Your task to perform on an android device: Open privacy settings Image 0: 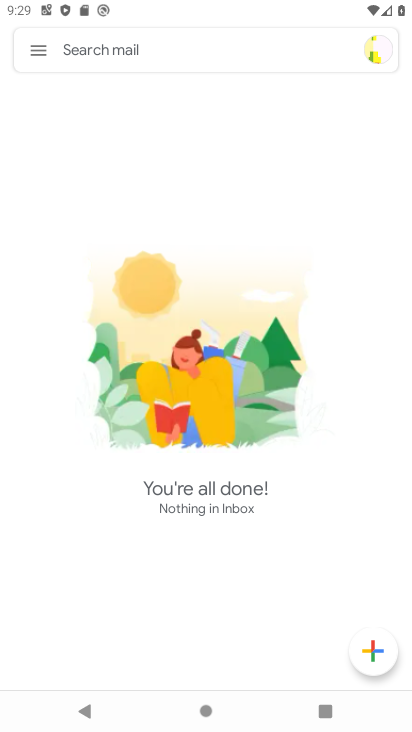
Step 0: press home button
Your task to perform on an android device: Open privacy settings Image 1: 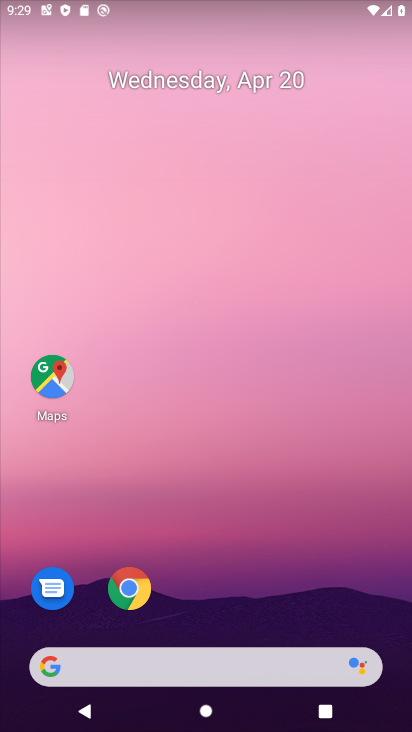
Step 1: click (129, 587)
Your task to perform on an android device: Open privacy settings Image 2: 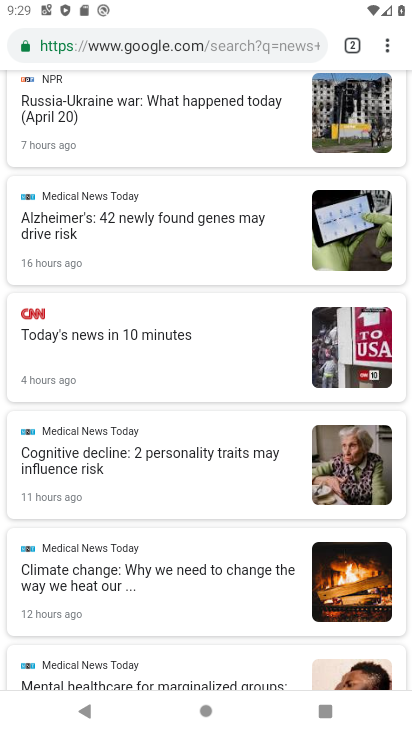
Step 2: drag from (388, 45) to (237, 558)
Your task to perform on an android device: Open privacy settings Image 3: 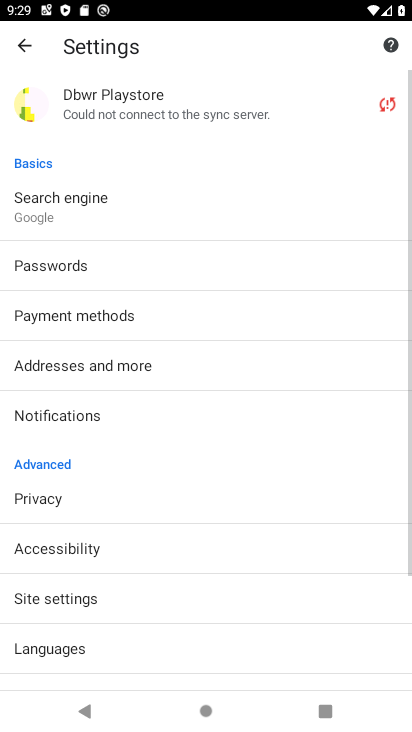
Step 3: click (26, 494)
Your task to perform on an android device: Open privacy settings Image 4: 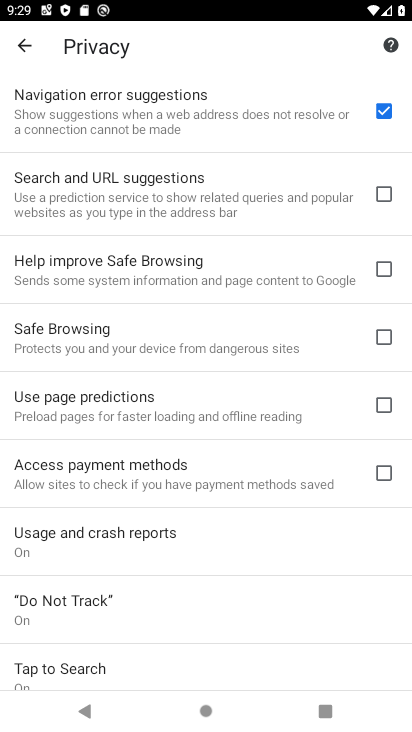
Step 4: task complete